Your task to perform on an android device: toggle priority inbox in the gmail app Image 0: 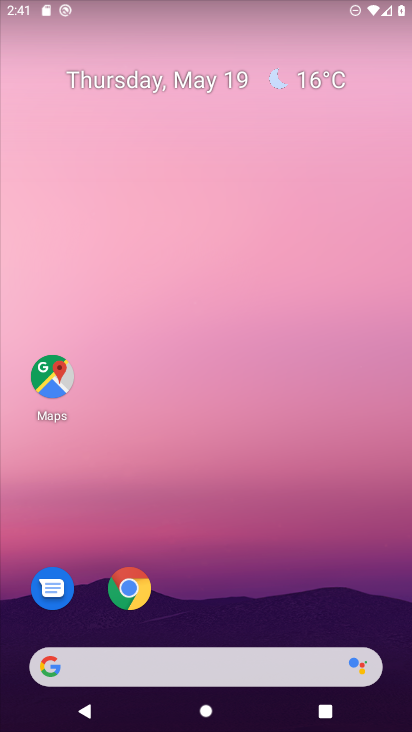
Step 0: drag from (294, 628) to (299, 0)
Your task to perform on an android device: toggle priority inbox in the gmail app Image 1: 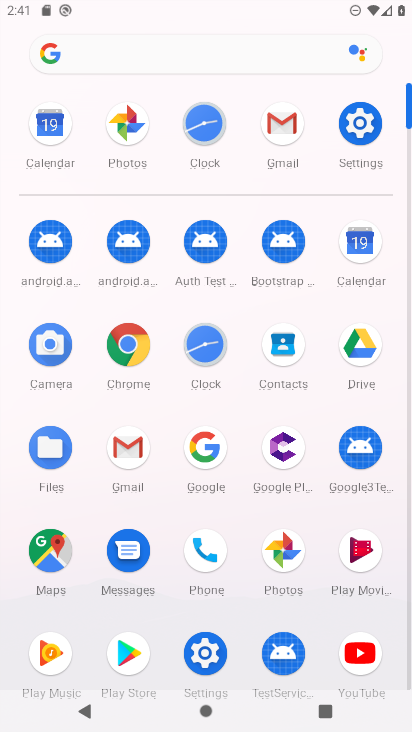
Step 1: click (292, 137)
Your task to perform on an android device: toggle priority inbox in the gmail app Image 2: 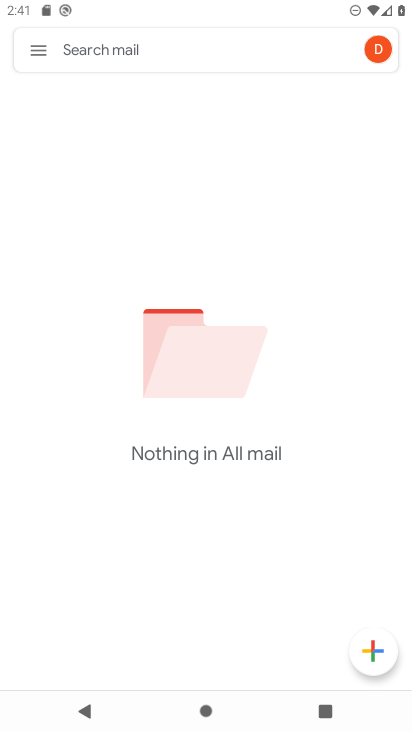
Step 2: click (28, 55)
Your task to perform on an android device: toggle priority inbox in the gmail app Image 3: 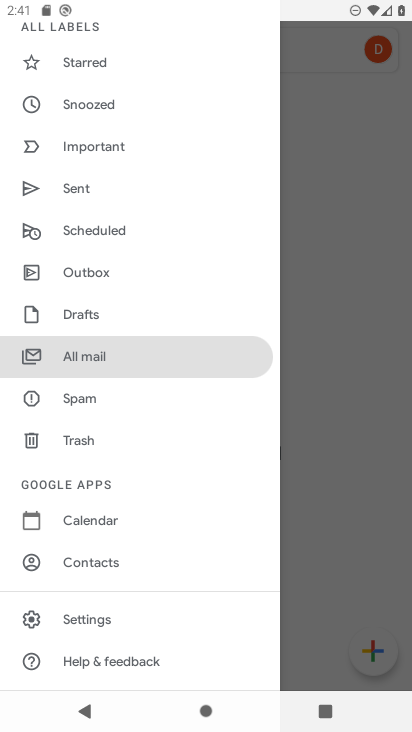
Step 3: click (85, 623)
Your task to perform on an android device: toggle priority inbox in the gmail app Image 4: 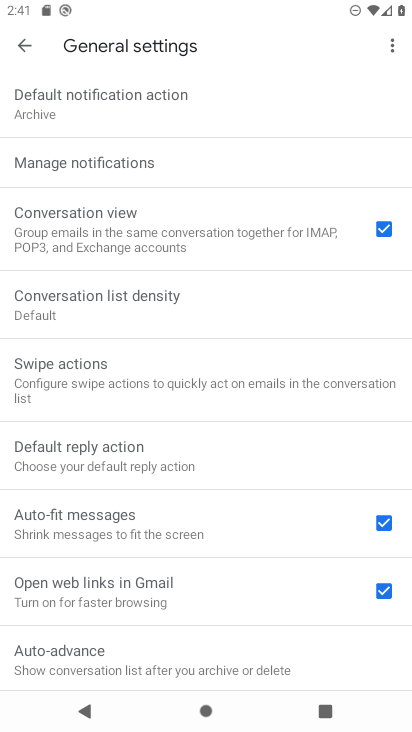
Step 4: click (24, 49)
Your task to perform on an android device: toggle priority inbox in the gmail app Image 5: 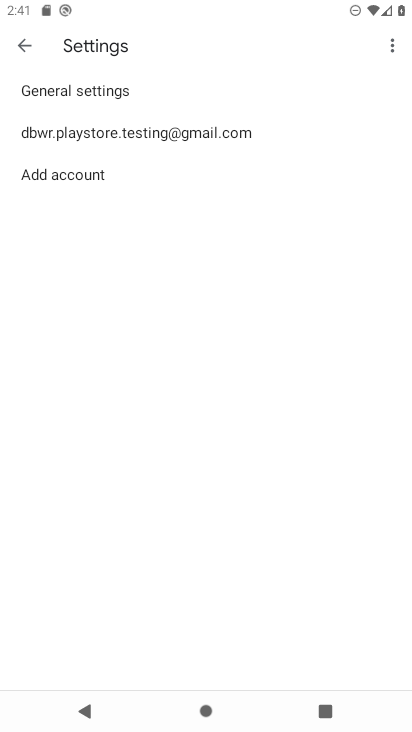
Step 5: click (64, 134)
Your task to perform on an android device: toggle priority inbox in the gmail app Image 6: 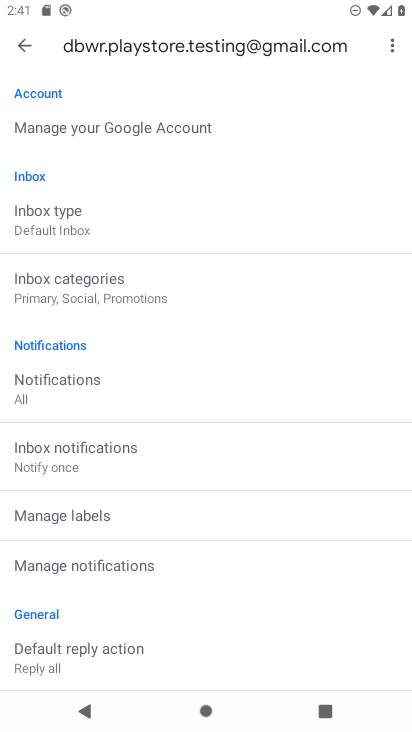
Step 6: click (68, 229)
Your task to perform on an android device: toggle priority inbox in the gmail app Image 7: 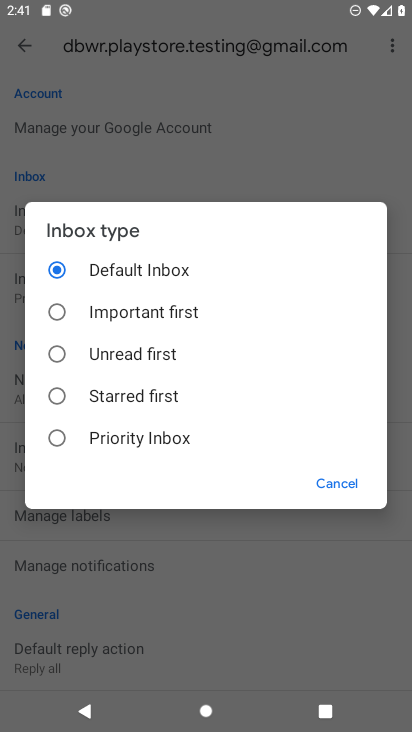
Step 7: click (67, 438)
Your task to perform on an android device: toggle priority inbox in the gmail app Image 8: 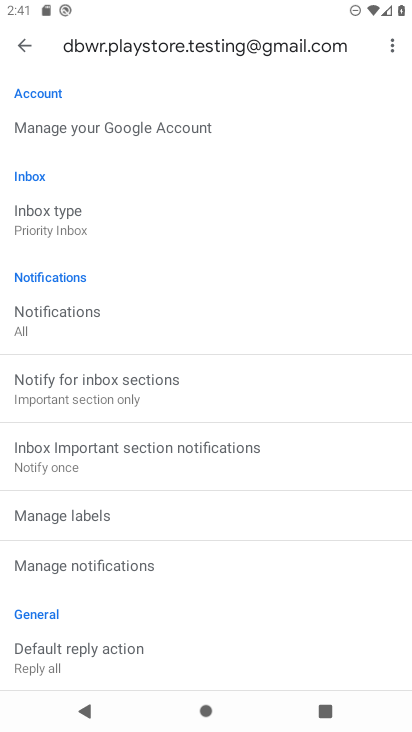
Step 8: task complete